Your task to perform on an android device: Check the news Image 0: 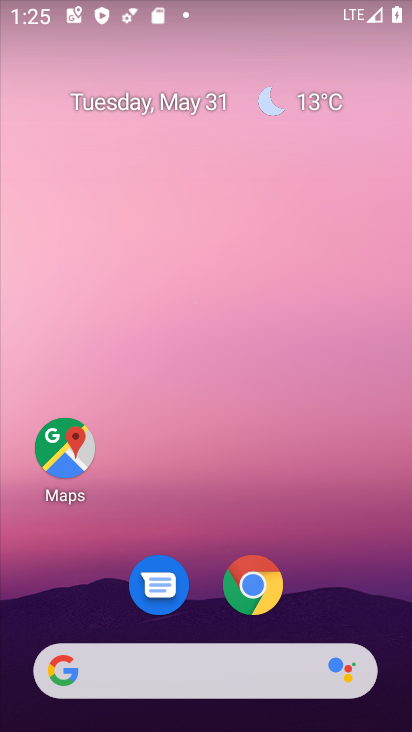
Step 0: click (186, 672)
Your task to perform on an android device: Check the news Image 1: 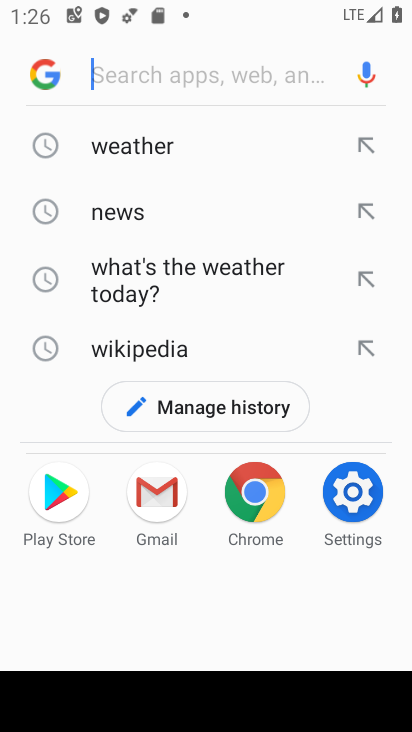
Step 1: click (124, 211)
Your task to perform on an android device: Check the news Image 2: 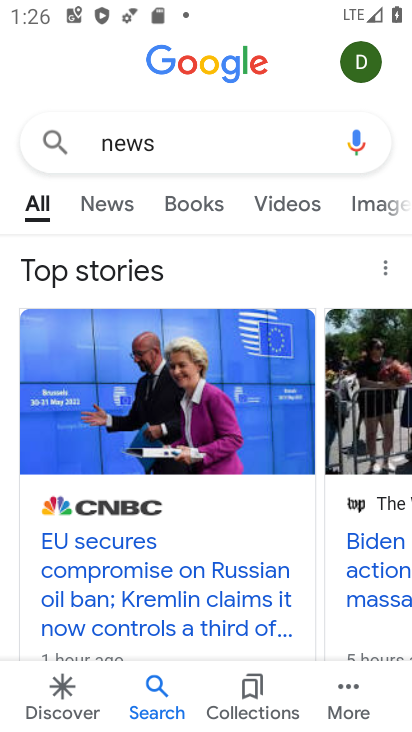
Step 2: task complete